Your task to perform on an android device: change alarm snooze length Image 0: 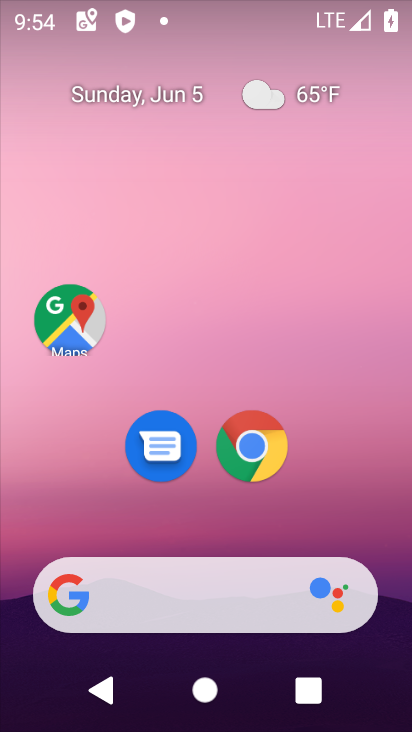
Step 0: drag from (194, 527) to (137, 101)
Your task to perform on an android device: change alarm snooze length Image 1: 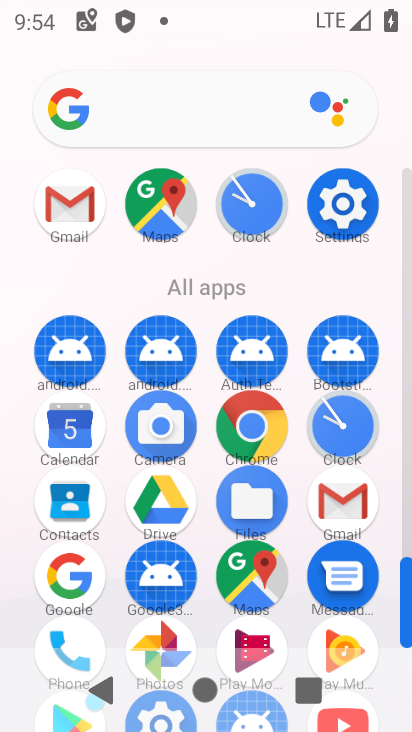
Step 1: click (348, 428)
Your task to perform on an android device: change alarm snooze length Image 2: 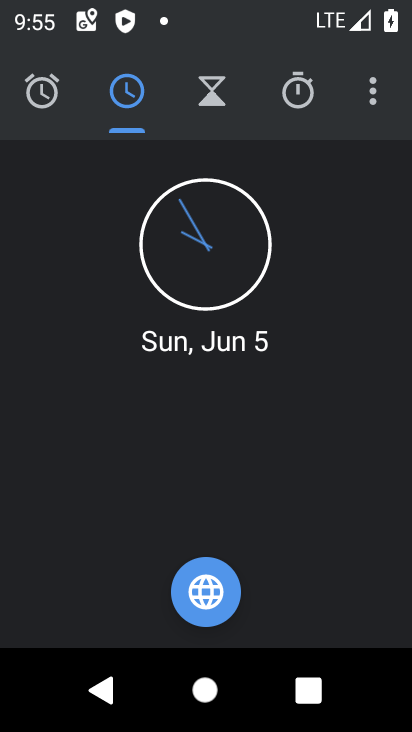
Step 2: click (378, 96)
Your task to perform on an android device: change alarm snooze length Image 3: 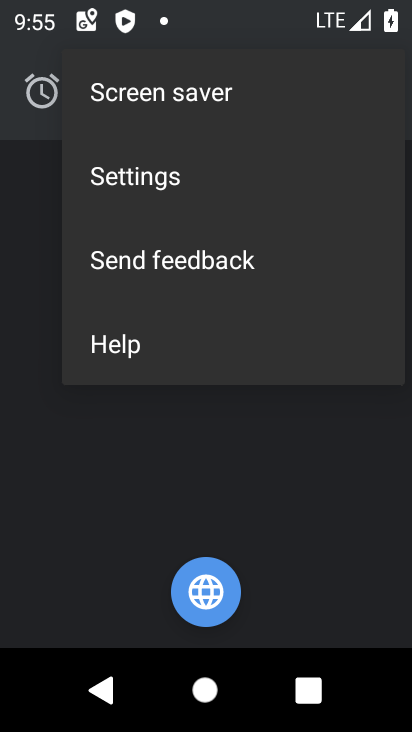
Step 3: click (193, 183)
Your task to perform on an android device: change alarm snooze length Image 4: 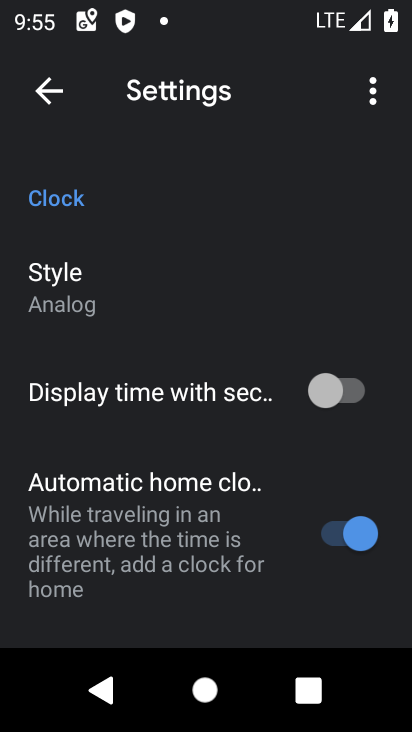
Step 4: drag from (146, 540) to (145, 206)
Your task to perform on an android device: change alarm snooze length Image 5: 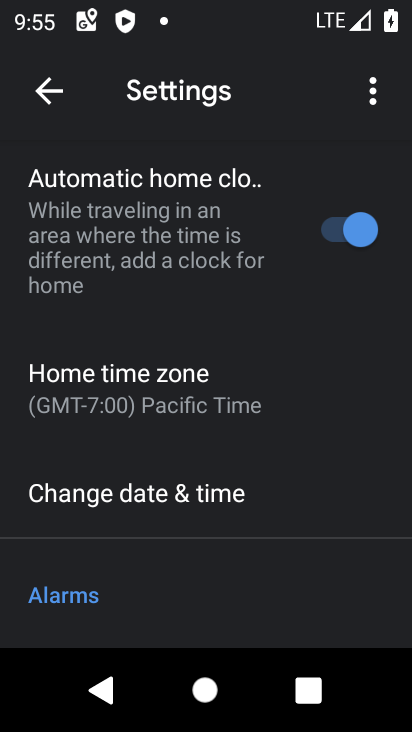
Step 5: drag from (159, 527) to (178, 242)
Your task to perform on an android device: change alarm snooze length Image 6: 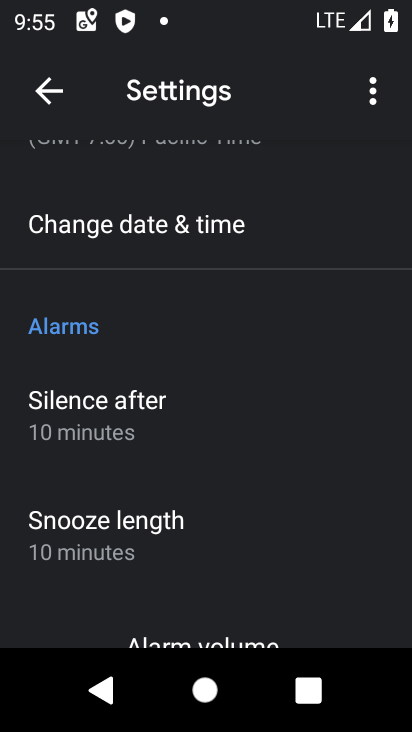
Step 6: click (118, 520)
Your task to perform on an android device: change alarm snooze length Image 7: 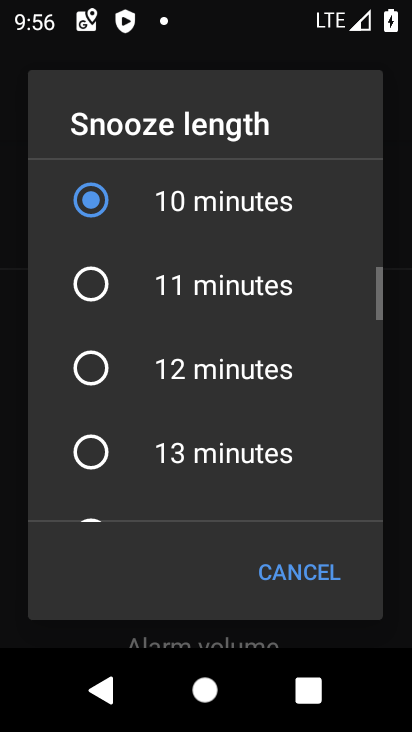
Step 7: click (95, 299)
Your task to perform on an android device: change alarm snooze length Image 8: 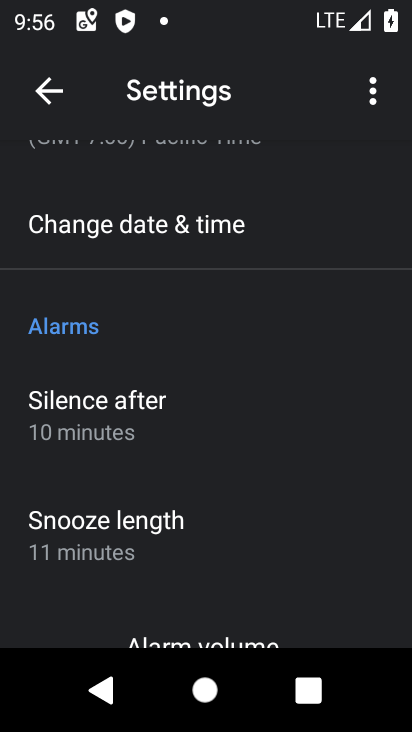
Step 8: task complete